Your task to perform on an android device: open app "Google Home" (install if not already installed) Image 0: 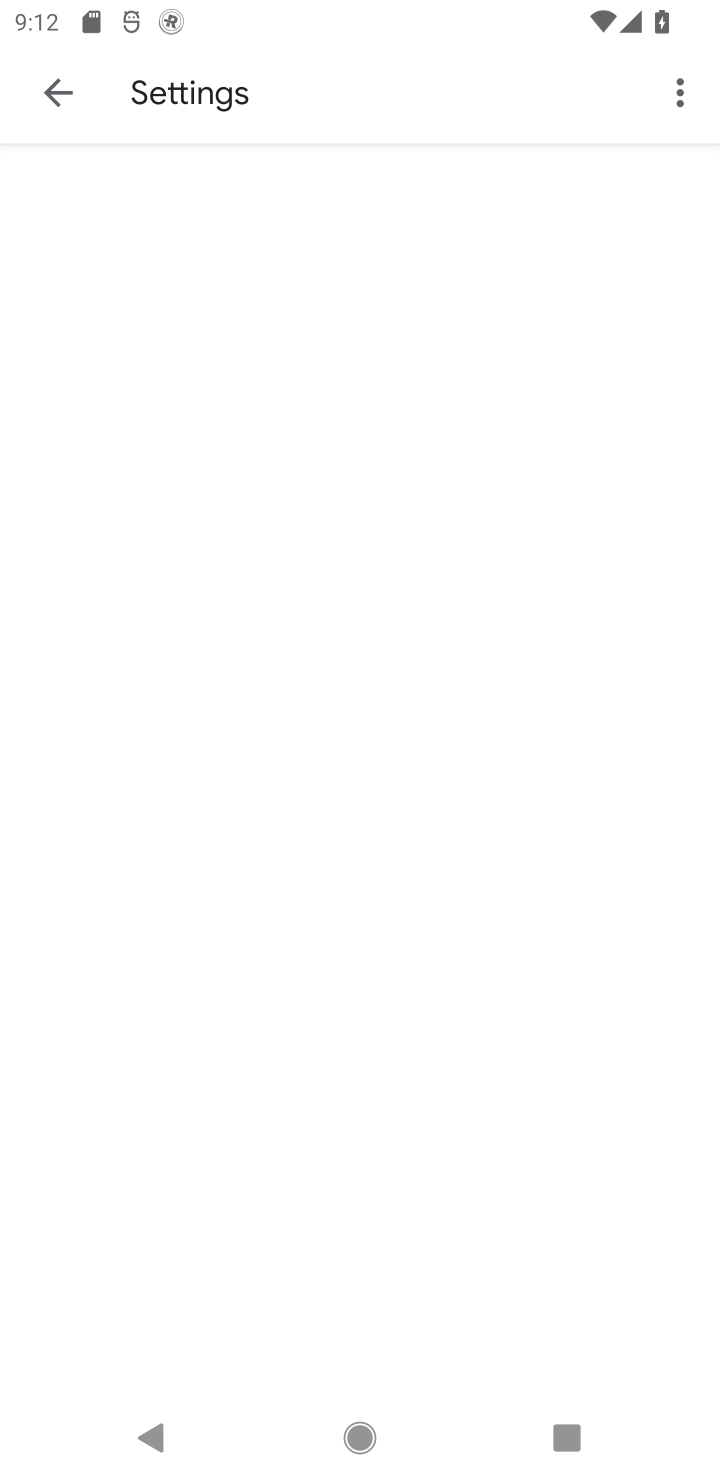
Step 0: press home button
Your task to perform on an android device: open app "Google Home" (install if not already installed) Image 1: 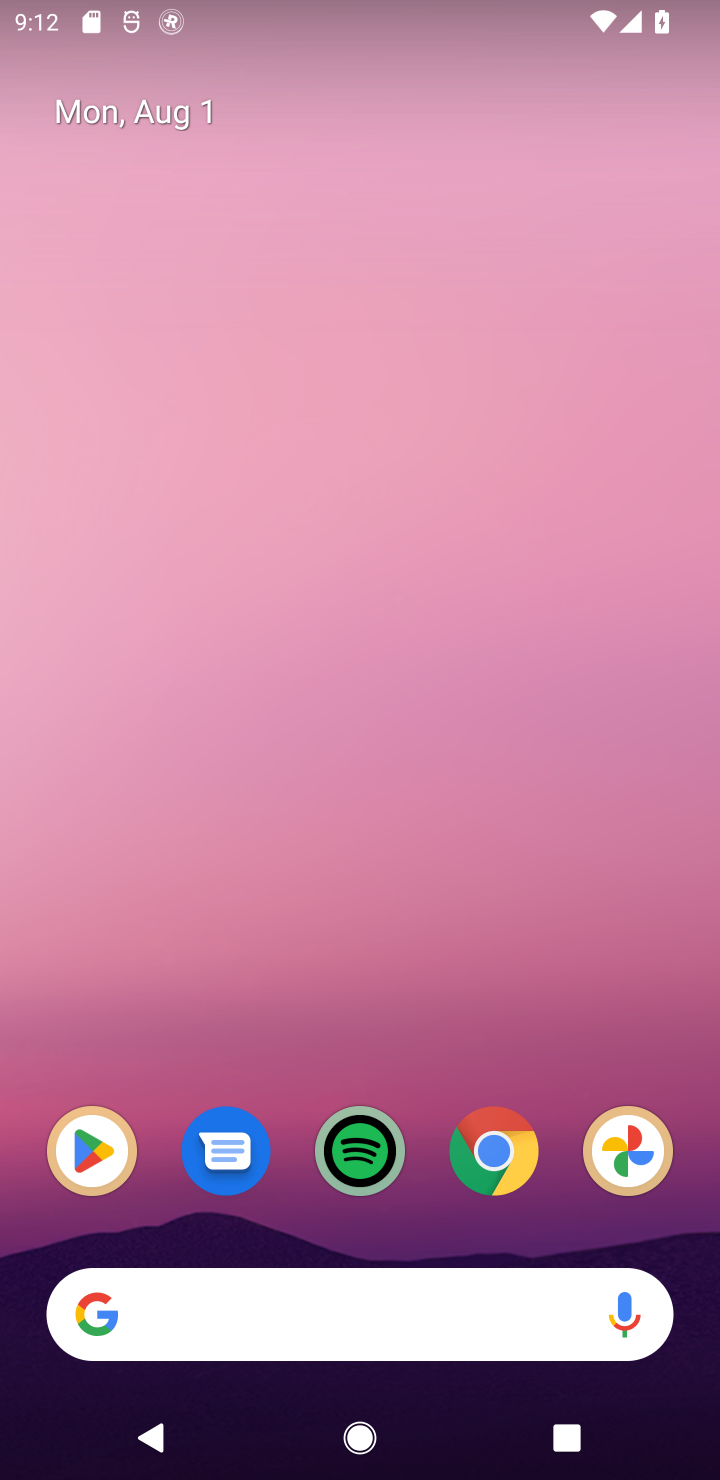
Step 1: click (94, 1131)
Your task to perform on an android device: open app "Google Home" (install if not already installed) Image 2: 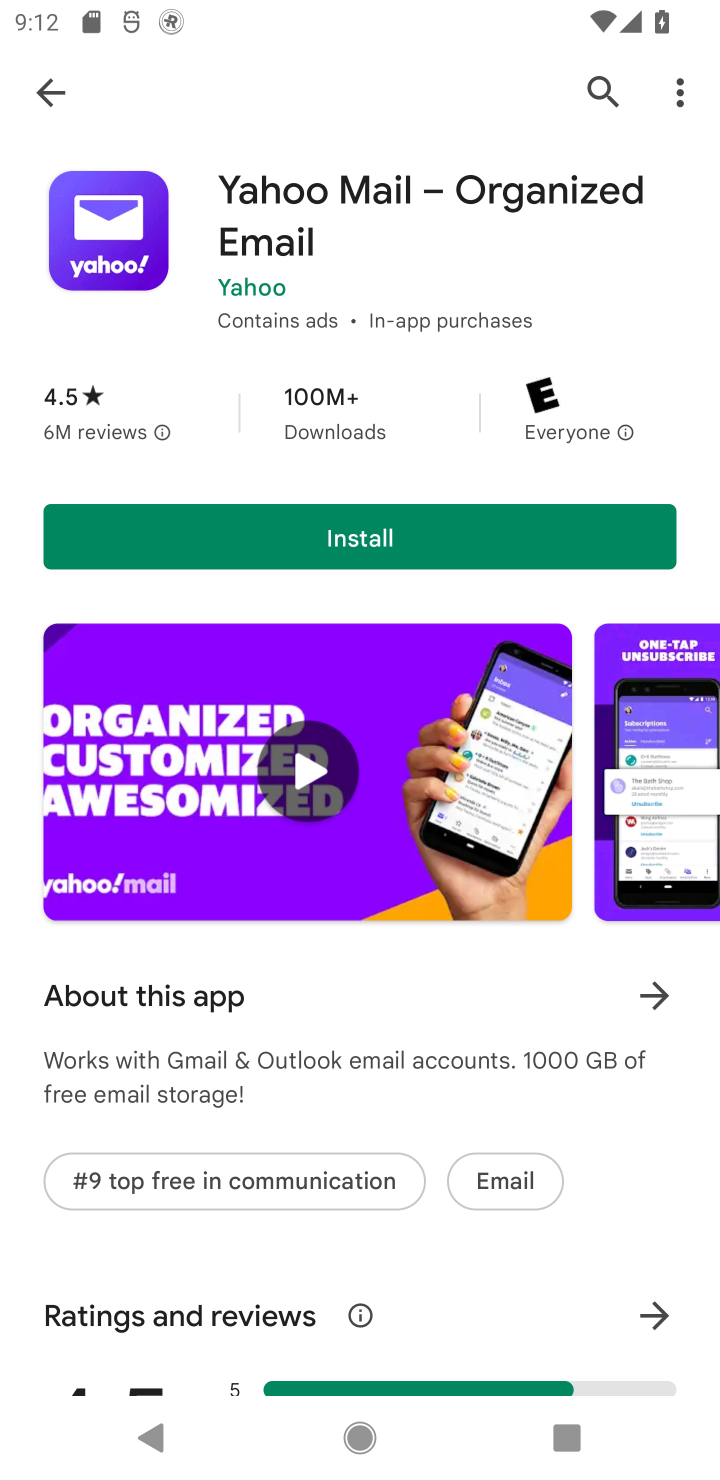
Step 2: click (603, 99)
Your task to perform on an android device: open app "Google Home" (install if not already installed) Image 3: 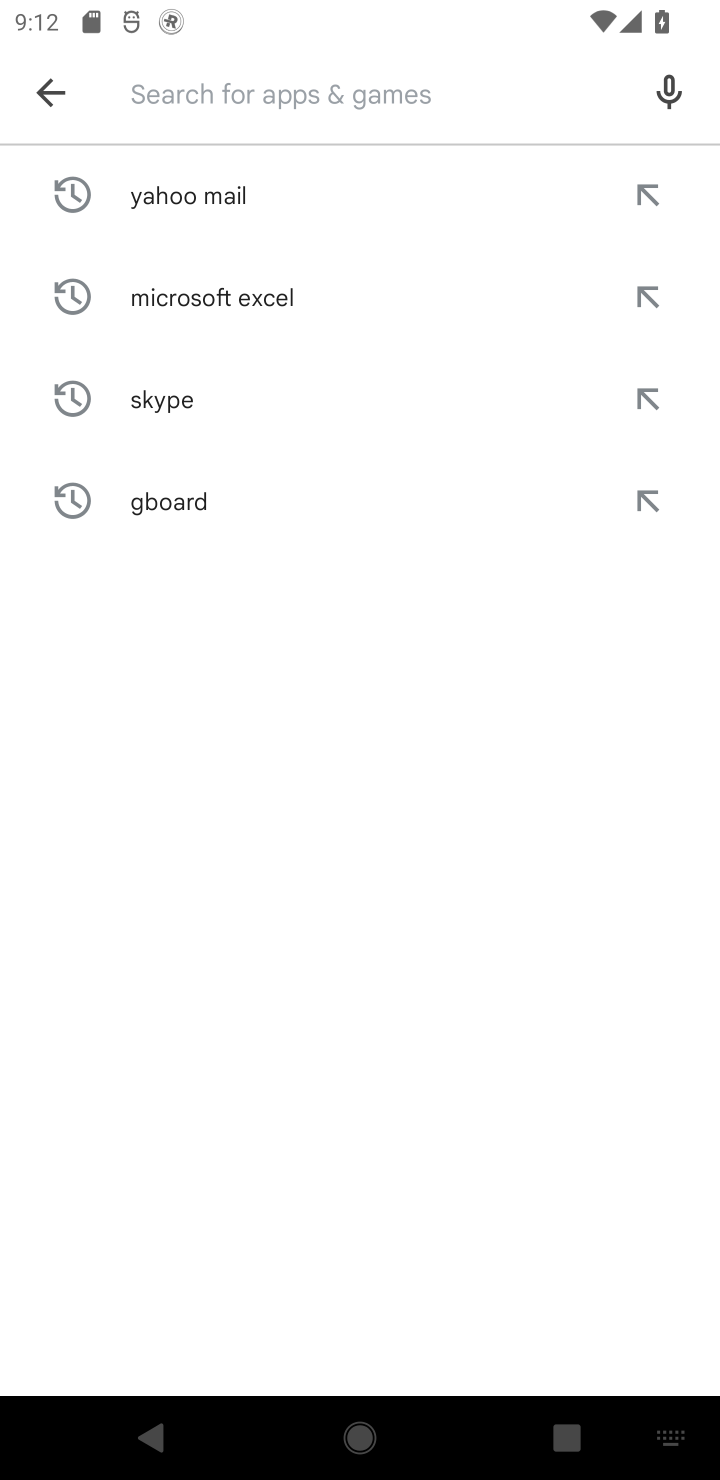
Step 3: type "Google Home"
Your task to perform on an android device: open app "Google Home" (install if not already installed) Image 4: 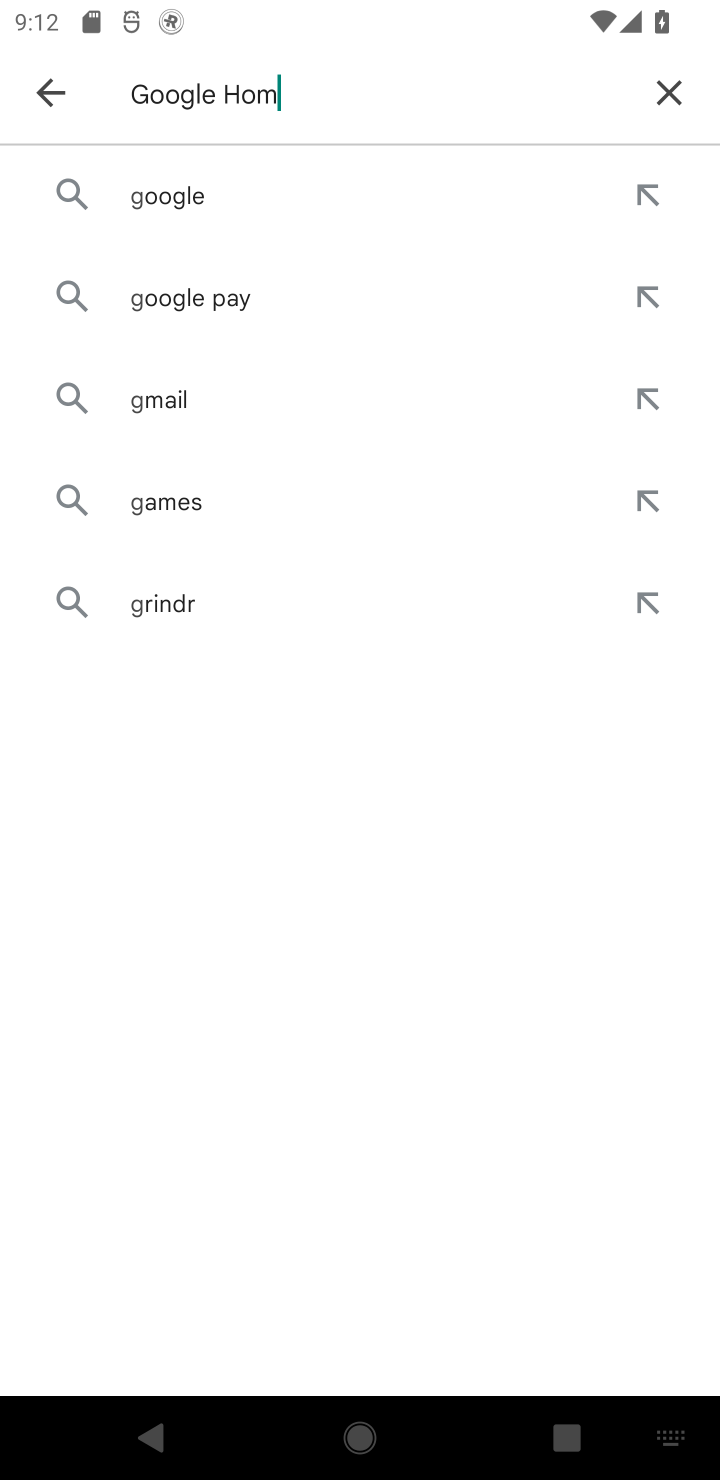
Step 4: type ""
Your task to perform on an android device: open app "Google Home" (install if not already installed) Image 5: 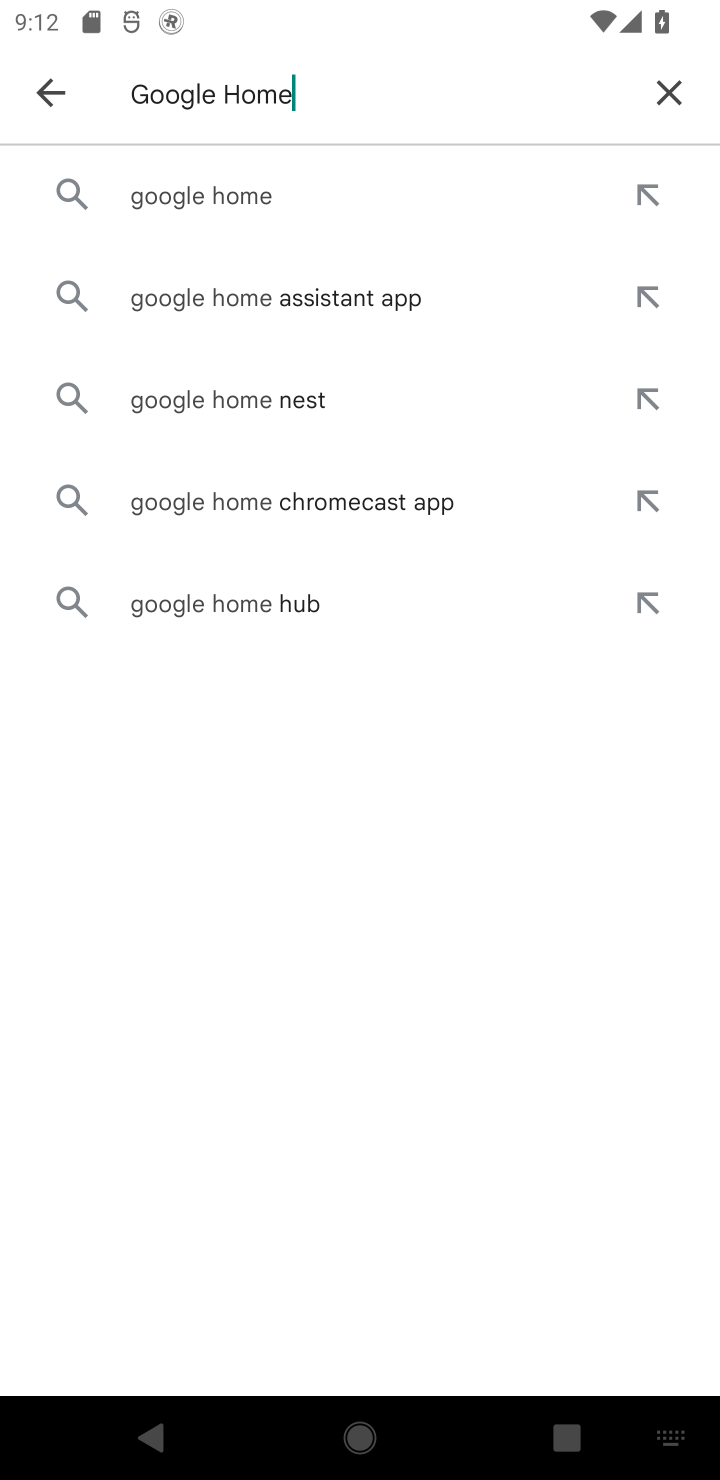
Step 5: click (210, 202)
Your task to perform on an android device: open app "Google Home" (install if not already installed) Image 6: 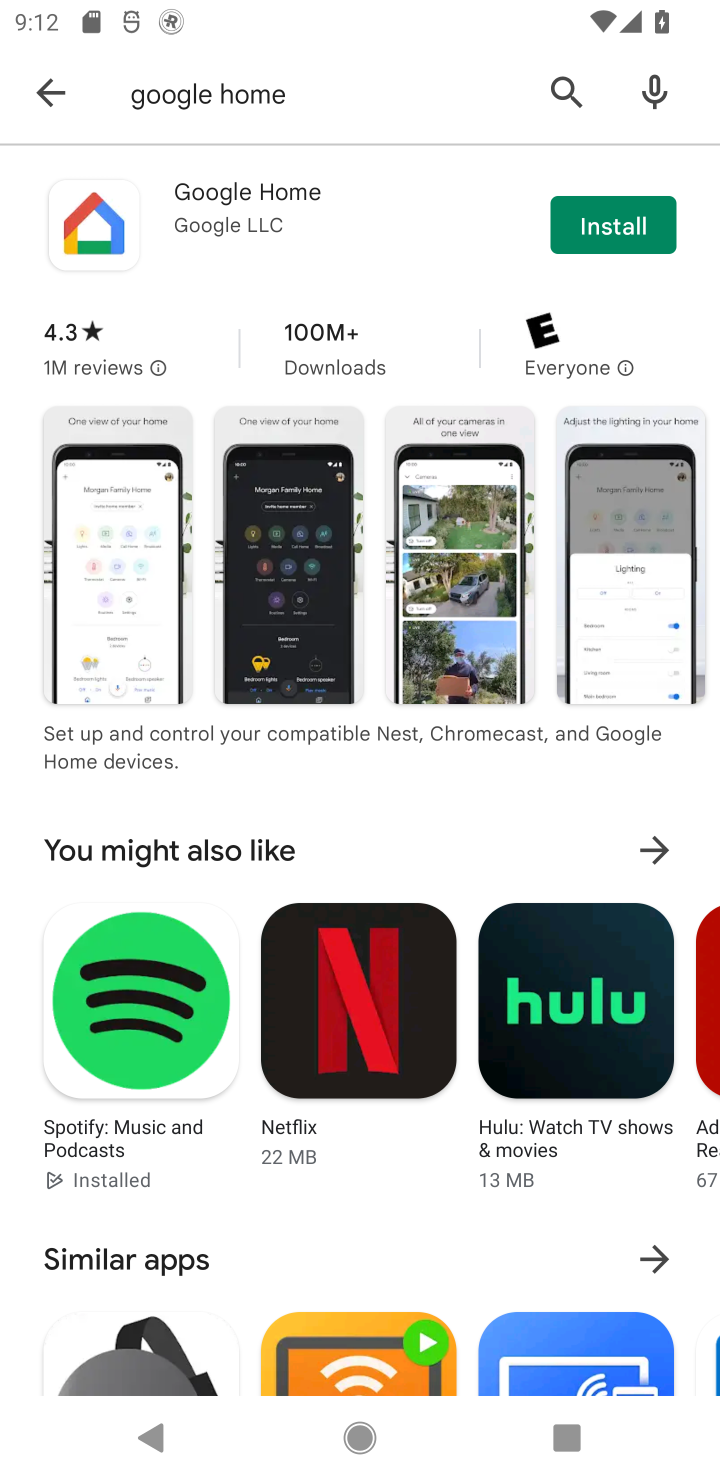
Step 6: click (650, 226)
Your task to perform on an android device: open app "Google Home" (install if not already installed) Image 7: 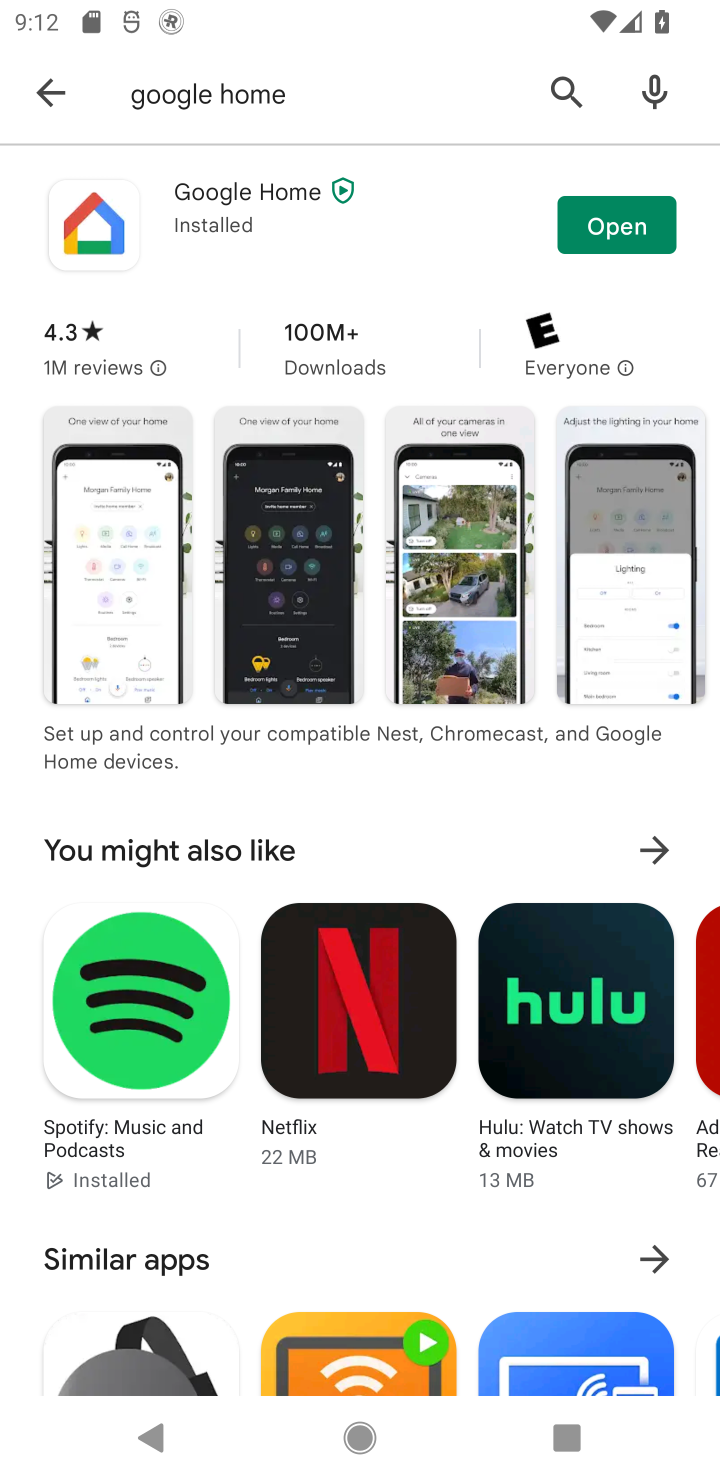
Step 7: click (650, 226)
Your task to perform on an android device: open app "Google Home" (install if not already installed) Image 8: 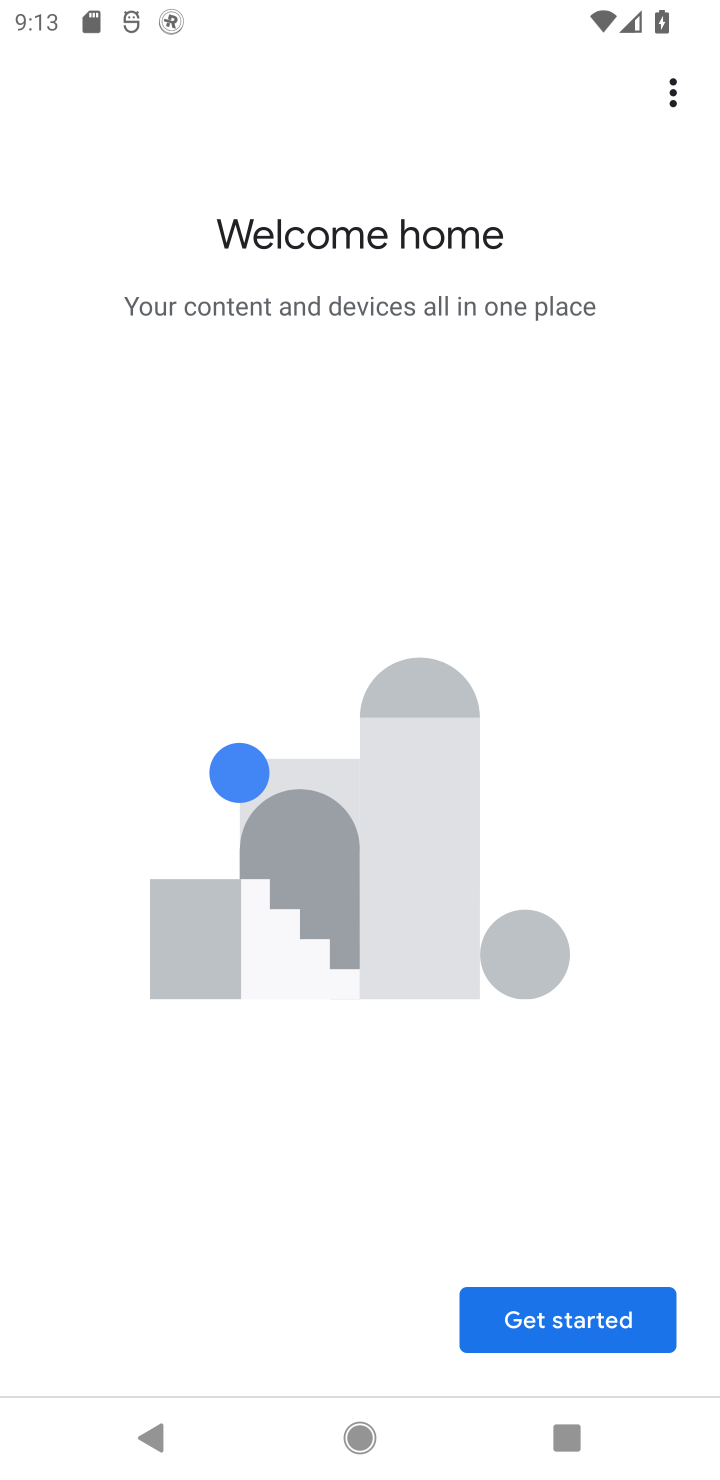
Step 8: task complete